Your task to perform on an android device: install app "Google Chrome" Image 0: 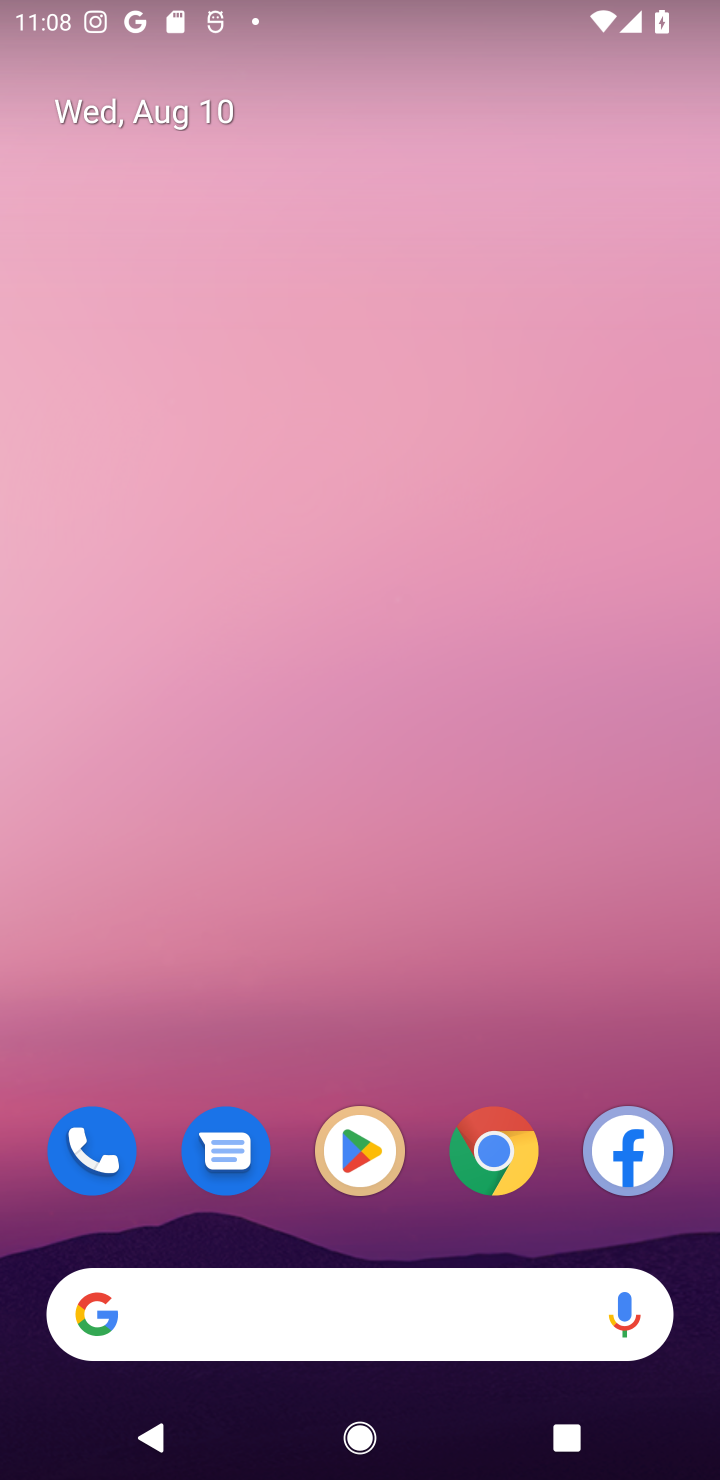
Step 0: click (500, 1144)
Your task to perform on an android device: install app "Google Chrome" Image 1: 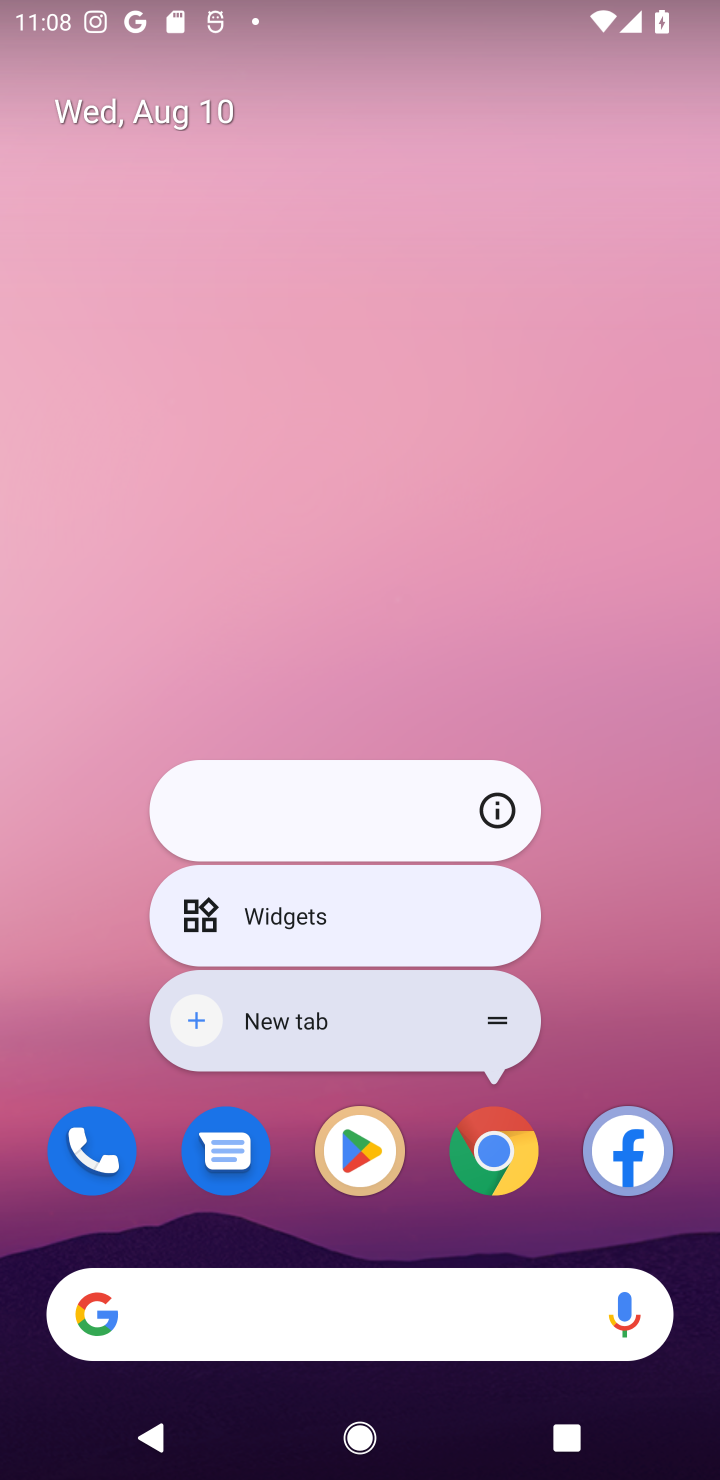
Step 1: click (515, 1133)
Your task to perform on an android device: install app "Google Chrome" Image 2: 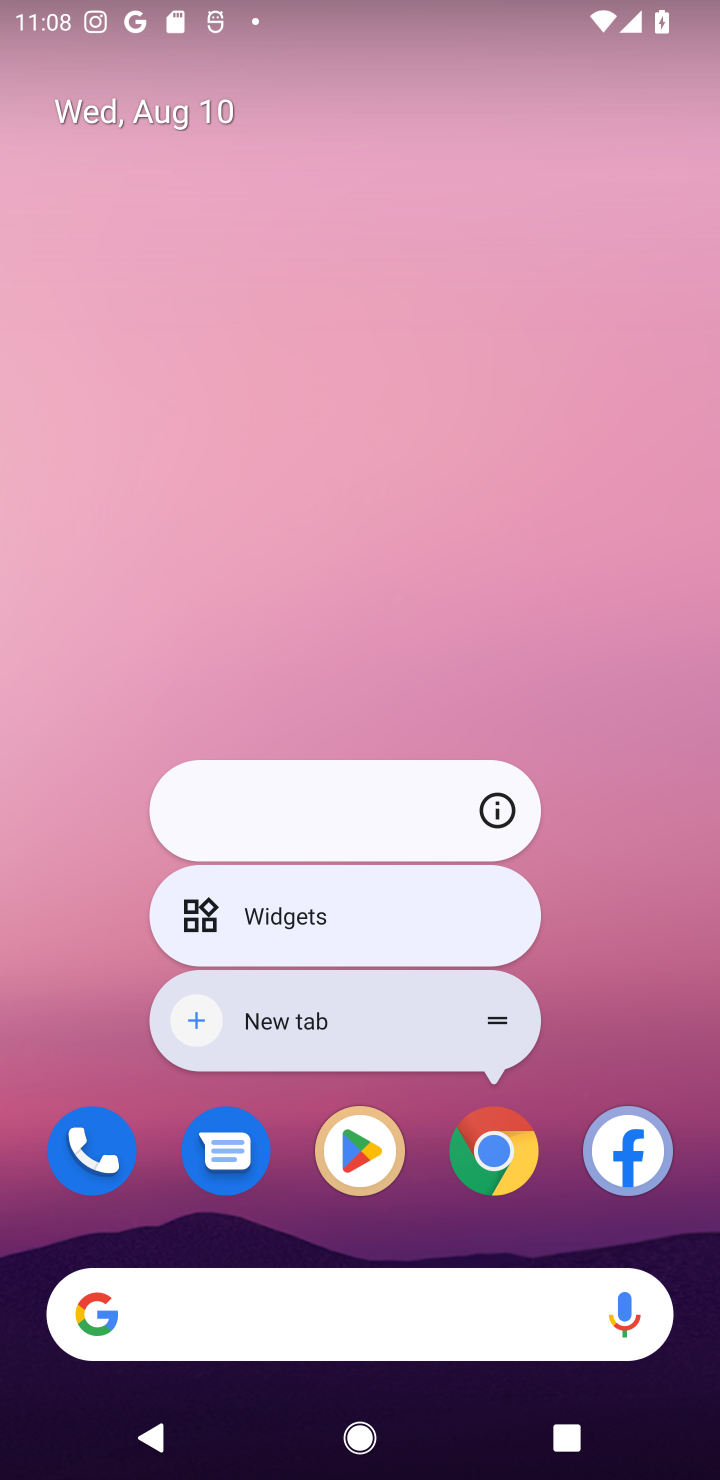
Step 2: click (496, 1154)
Your task to perform on an android device: install app "Google Chrome" Image 3: 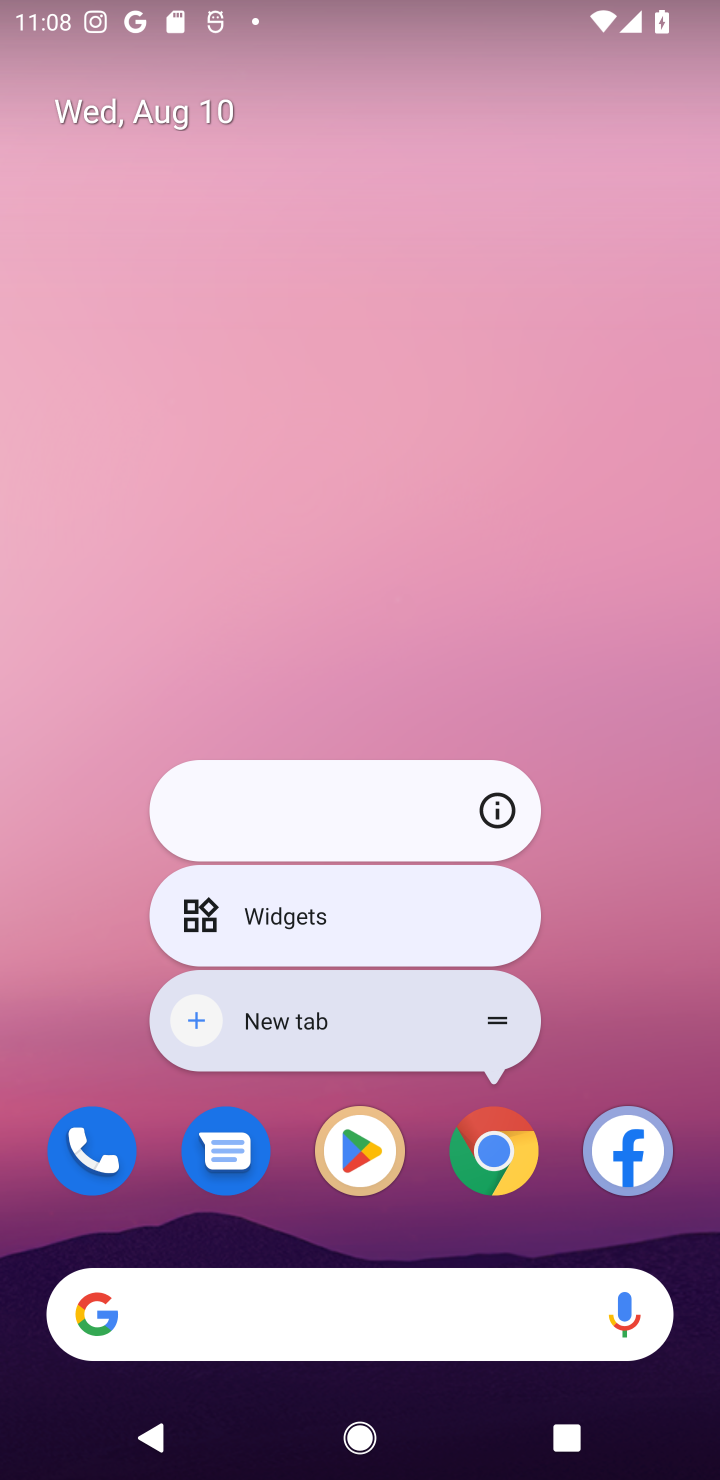
Step 3: click (486, 1144)
Your task to perform on an android device: install app "Google Chrome" Image 4: 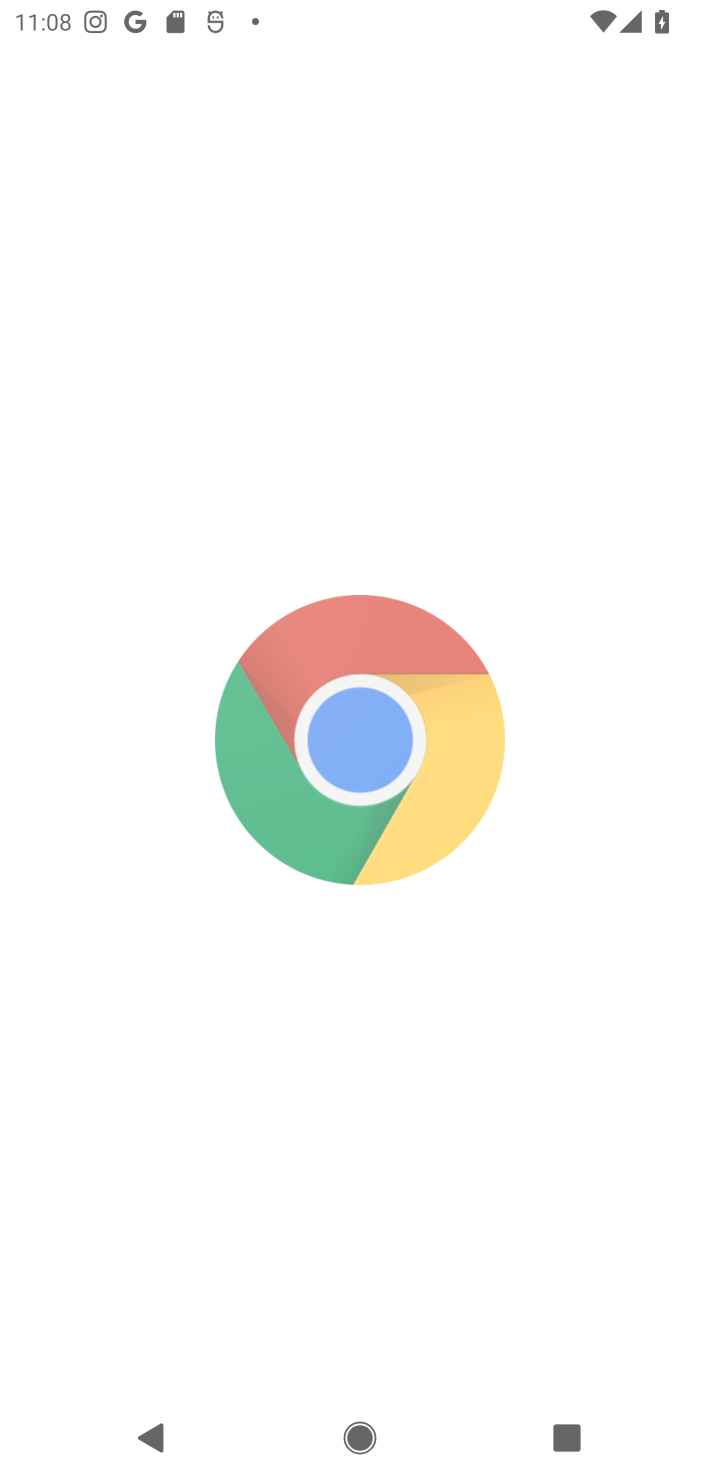
Step 4: task complete